Your task to perform on an android device: turn off wifi Image 0: 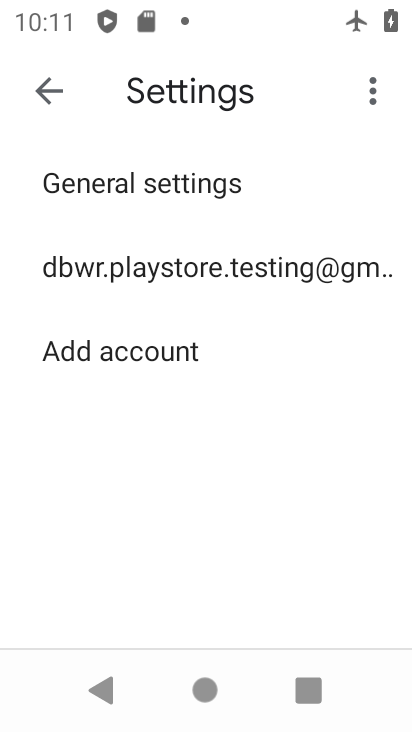
Step 0: press home button
Your task to perform on an android device: turn off wifi Image 1: 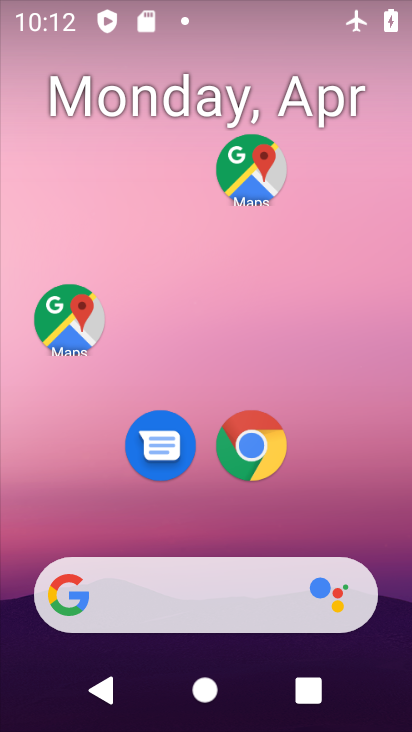
Step 1: drag from (146, 303) to (247, 6)
Your task to perform on an android device: turn off wifi Image 2: 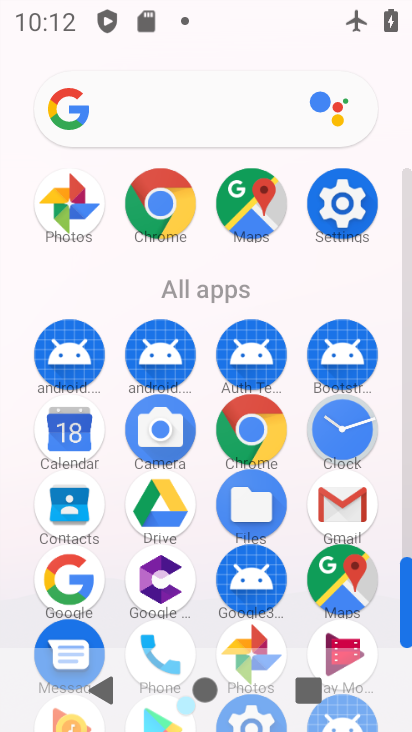
Step 2: click (325, 203)
Your task to perform on an android device: turn off wifi Image 3: 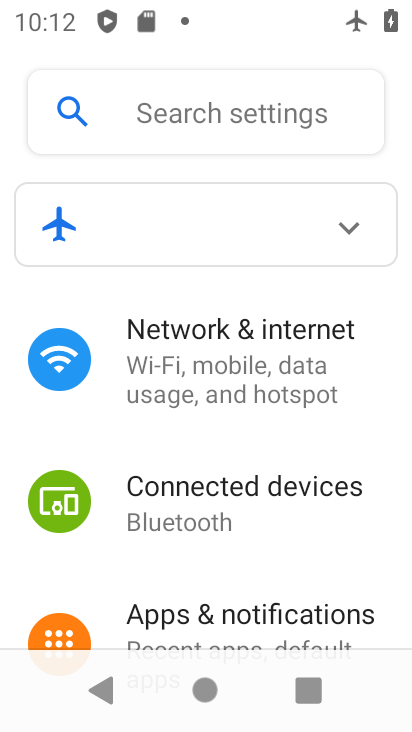
Step 3: click (260, 354)
Your task to perform on an android device: turn off wifi Image 4: 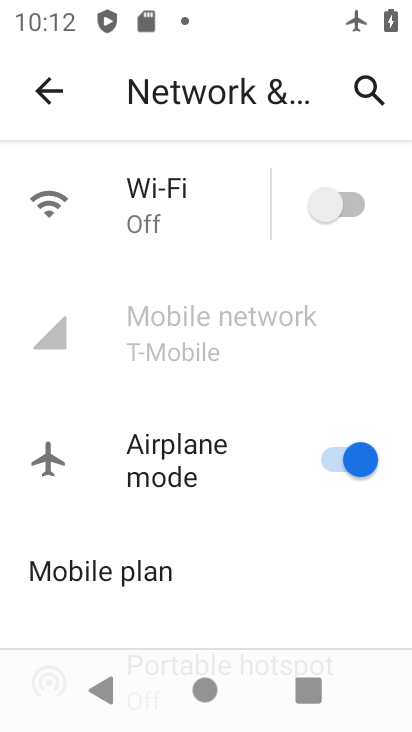
Step 4: task complete